Your task to perform on an android device: See recent photos Image 0: 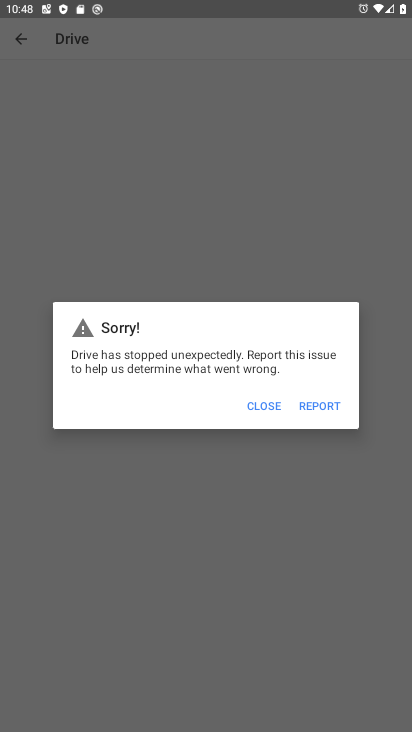
Step 0: press home button
Your task to perform on an android device: See recent photos Image 1: 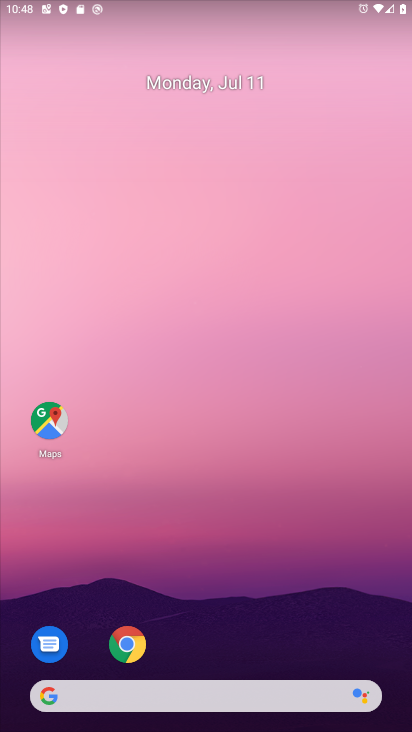
Step 1: drag from (202, 657) to (185, 83)
Your task to perform on an android device: See recent photos Image 2: 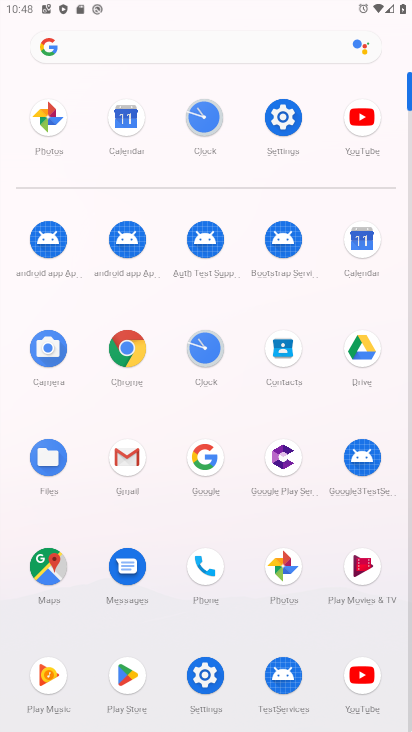
Step 2: click (279, 560)
Your task to perform on an android device: See recent photos Image 3: 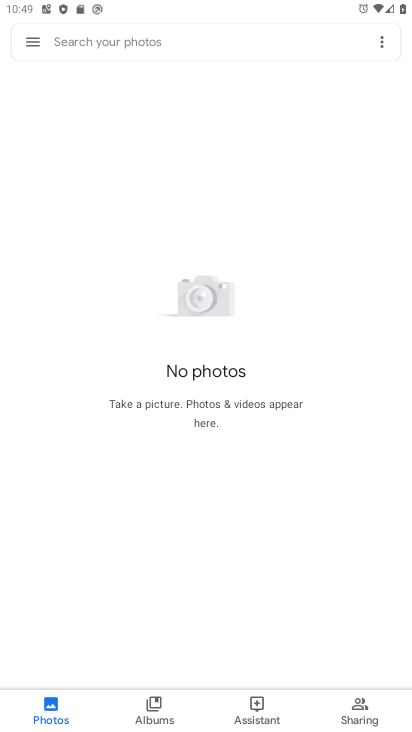
Step 3: task complete